Your task to perform on an android device: Open Google Chrome and open the bookmarks view Image 0: 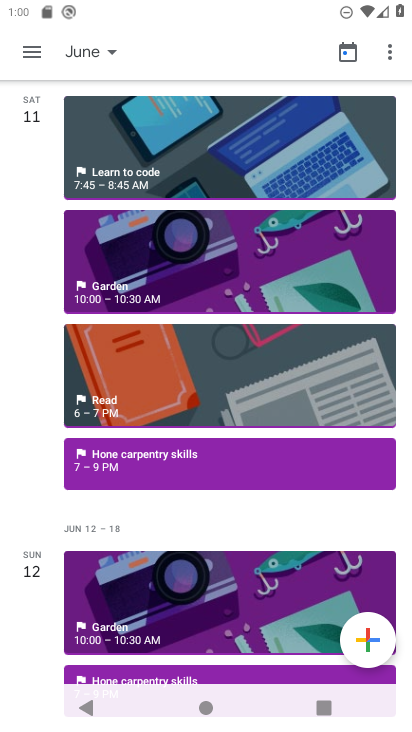
Step 0: press home button
Your task to perform on an android device: Open Google Chrome and open the bookmarks view Image 1: 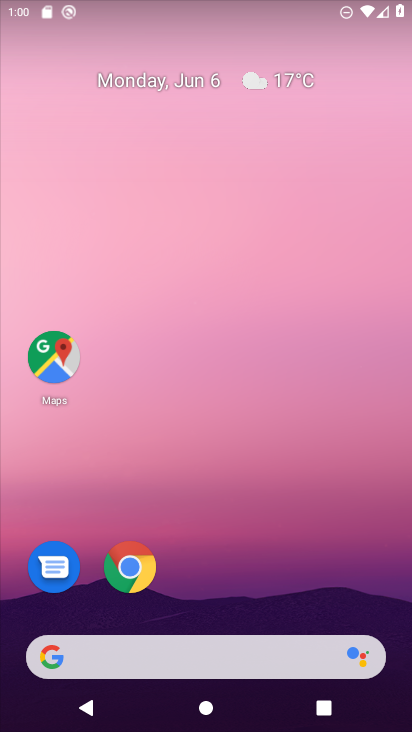
Step 1: click (128, 575)
Your task to perform on an android device: Open Google Chrome and open the bookmarks view Image 2: 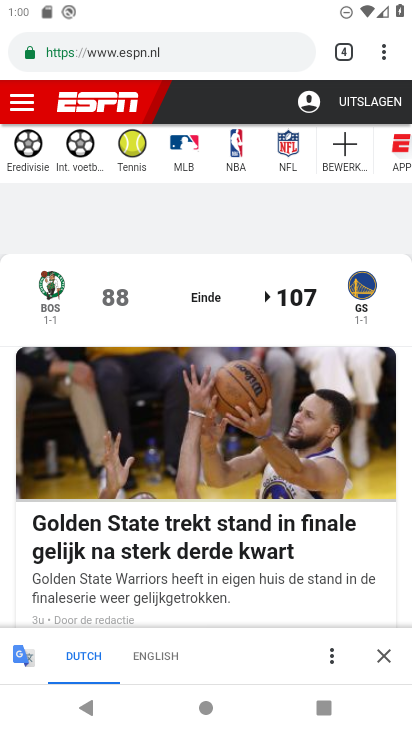
Step 2: click (383, 59)
Your task to perform on an android device: Open Google Chrome and open the bookmarks view Image 3: 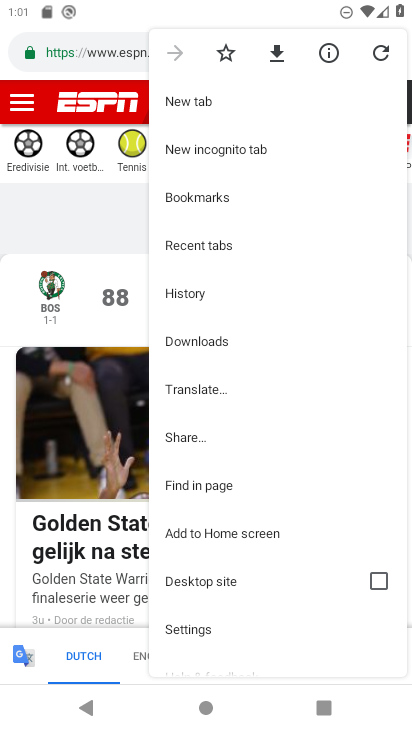
Step 3: click (201, 195)
Your task to perform on an android device: Open Google Chrome and open the bookmarks view Image 4: 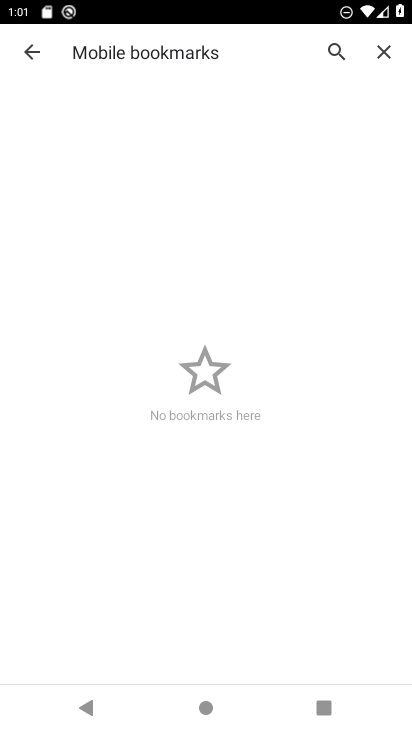
Step 4: task complete